Your task to perform on an android device: snooze an email in the gmail app Image 0: 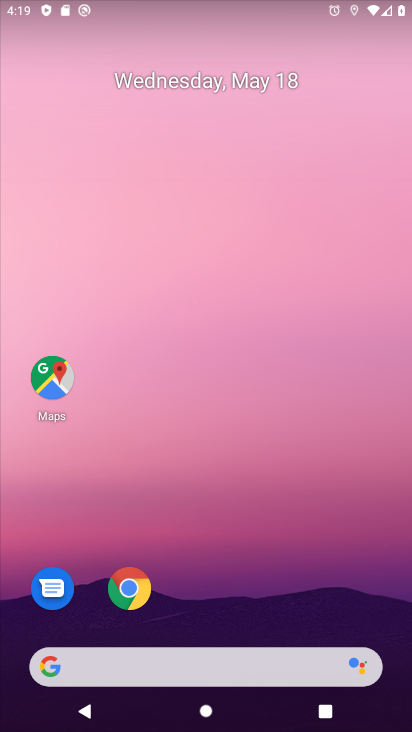
Step 0: drag from (255, 568) to (242, 78)
Your task to perform on an android device: snooze an email in the gmail app Image 1: 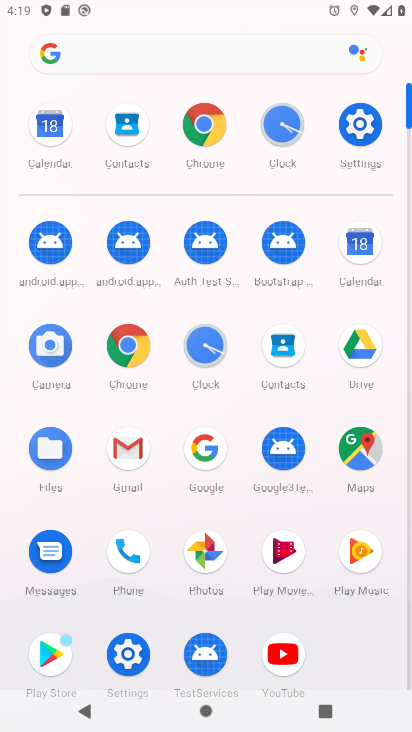
Step 1: click (125, 439)
Your task to perform on an android device: snooze an email in the gmail app Image 2: 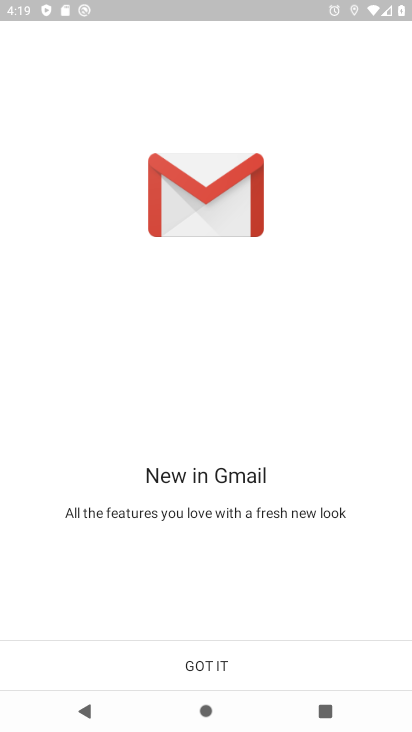
Step 2: click (217, 664)
Your task to perform on an android device: snooze an email in the gmail app Image 3: 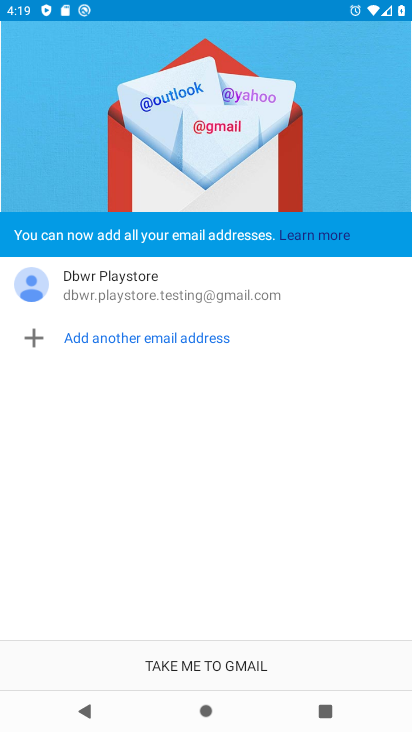
Step 3: click (196, 658)
Your task to perform on an android device: snooze an email in the gmail app Image 4: 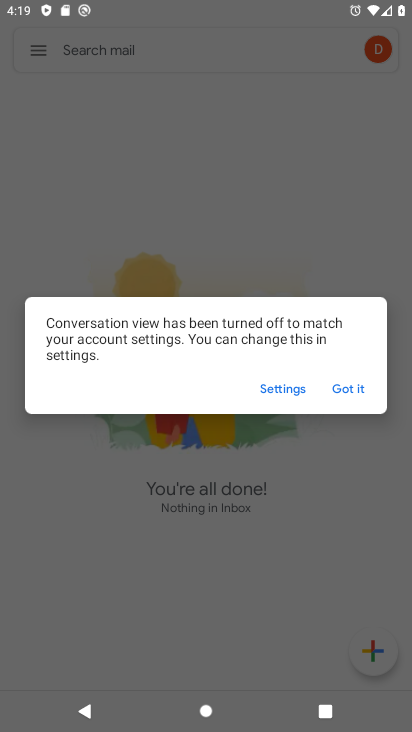
Step 4: click (340, 388)
Your task to perform on an android device: snooze an email in the gmail app Image 5: 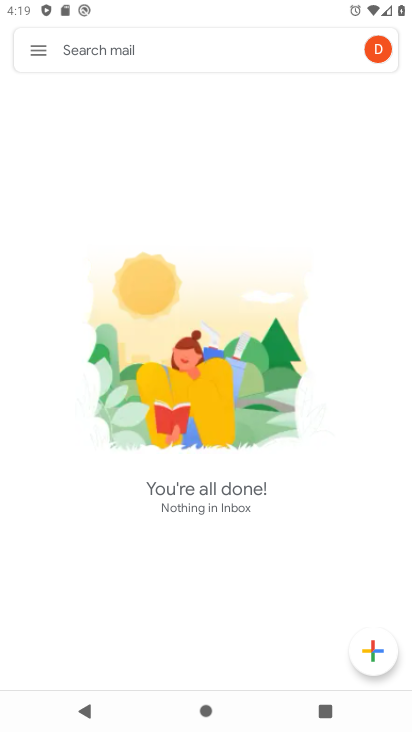
Step 5: click (41, 44)
Your task to perform on an android device: snooze an email in the gmail app Image 6: 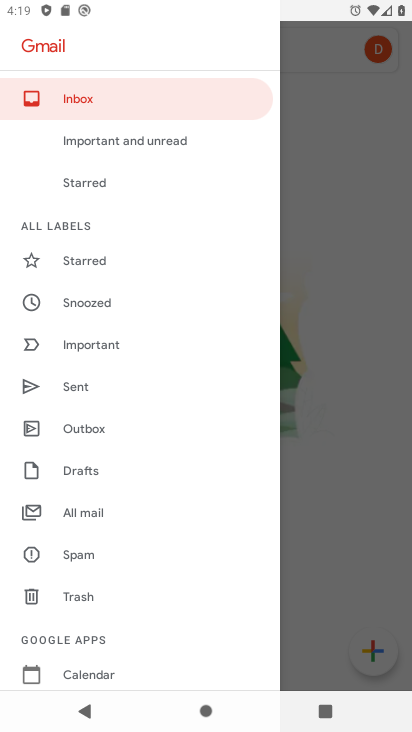
Step 6: click (80, 517)
Your task to perform on an android device: snooze an email in the gmail app Image 7: 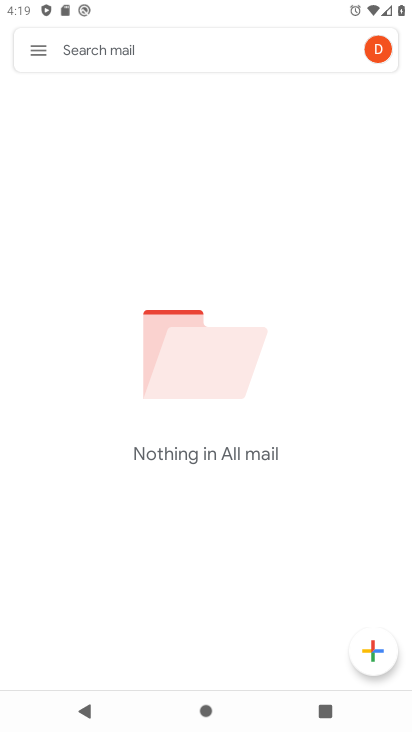
Step 7: task complete